Your task to perform on an android device: turn off airplane mode Image 0: 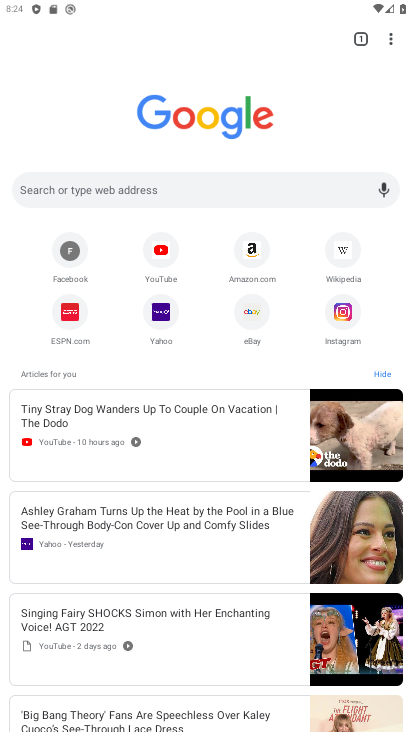
Step 0: press home button
Your task to perform on an android device: turn off airplane mode Image 1: 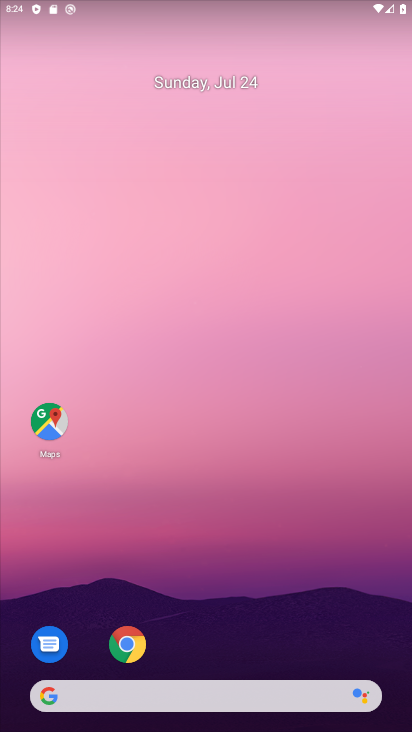
Step 1: task complete